Your task to perform on an android device: toggle location history Image 0: 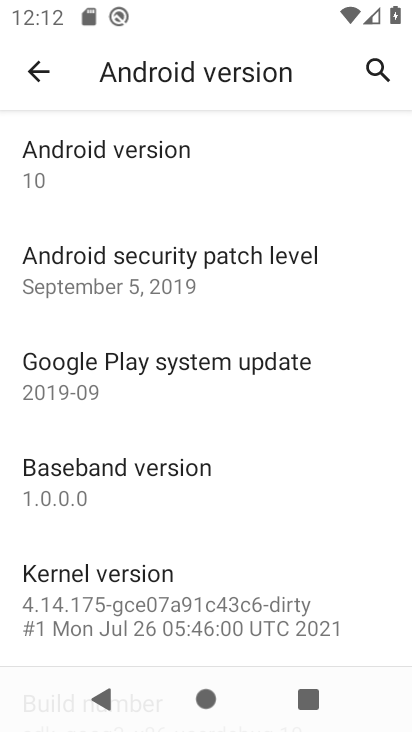
Step 0: press home button
Your task to perform on an android device: toggle location history Image 1: 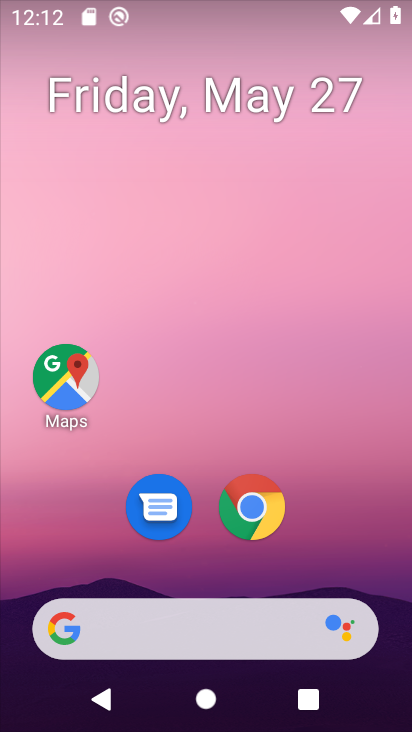
Step 1: drag from (79, 589) to (225, 44)
Your task to perform on an android device: toggle location history Image 2: 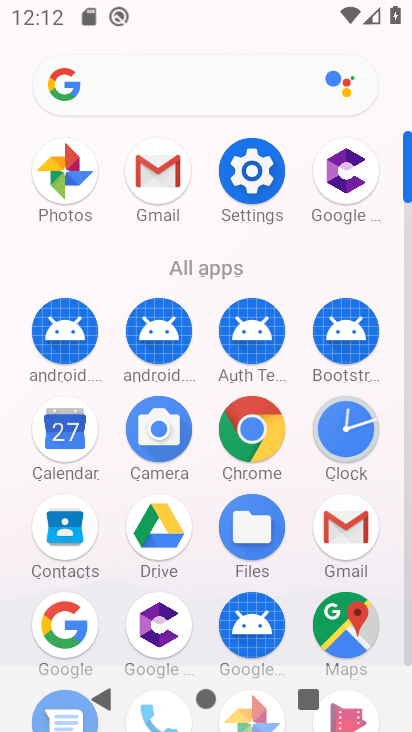
Step 2: drag from (148, 567) to (244, 248)
Your task to perform on an android device: toggle location history Image 3: 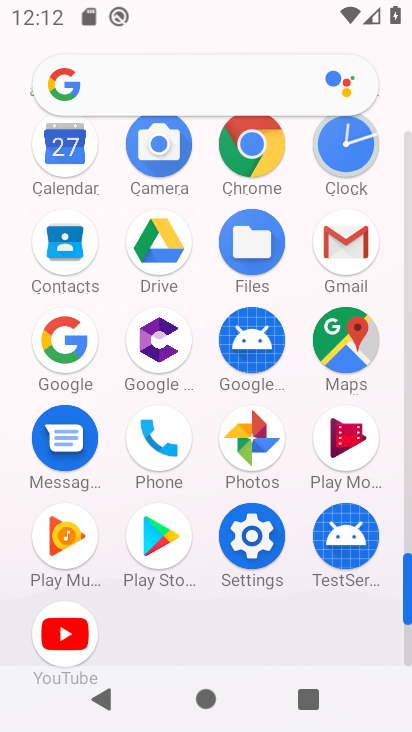
Step 3: click (248, 528)
Your task to perform on an android device: toggle location history Image 4: 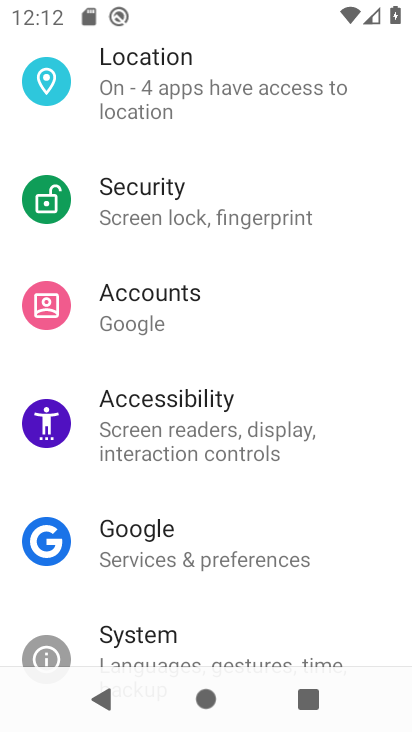
Step 4: drag from (239, 212) to (234, 709)
Your task to perform on an android device: toggle location history Image 5: 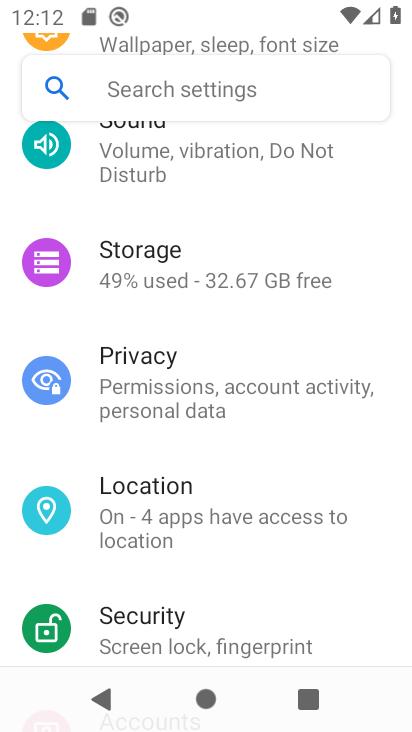
Step 5: click (138, 491)
Your task to perform on an android device: toggle location history Image 6: 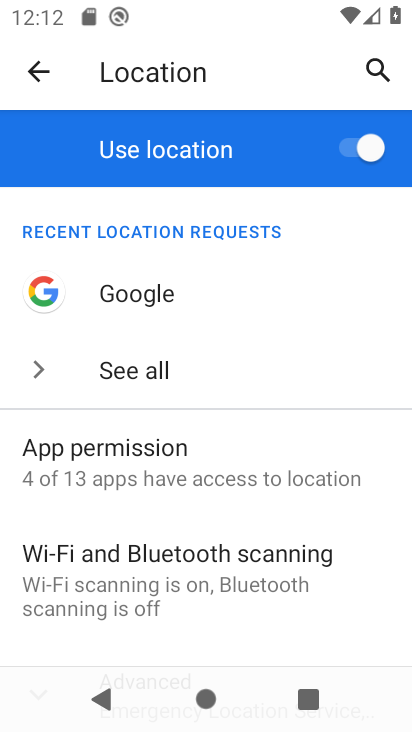
Step 6: drag from (129, 629) to (215, 401)
Your task to perform on an android device: toggle location history Image 7: 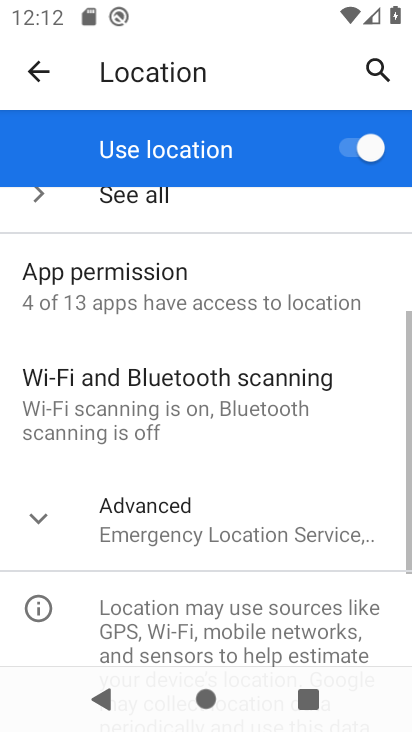
Step 7: click (164, 498)
Your task to perform on an android device: toggle location history Image 8: 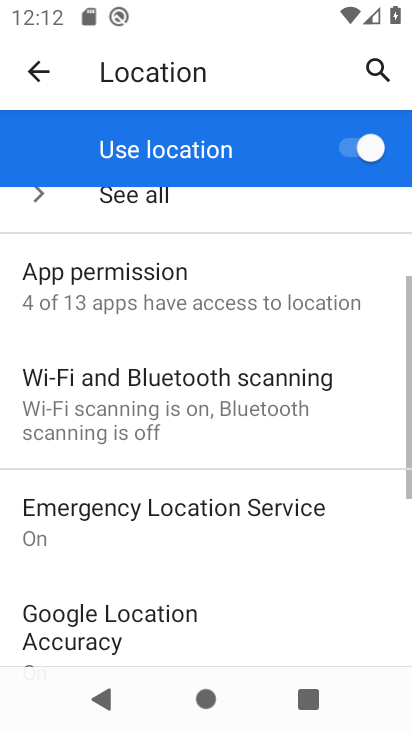
Step 8: drag from (163, 591) to (317, 225)
Your task to perform on an android device: toggle location history Image 9: 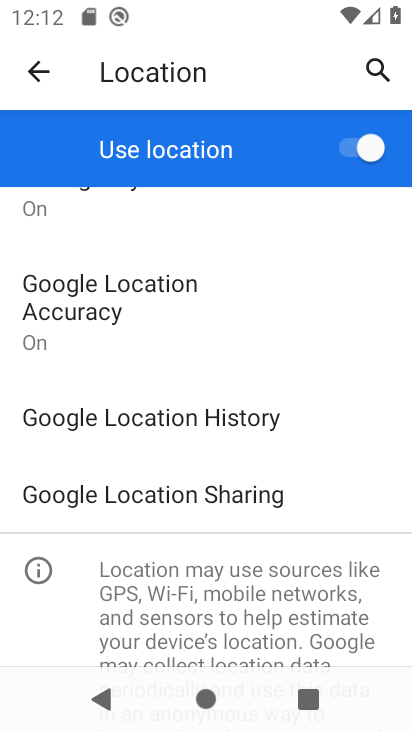
Step 9: click (159, 420)
Your task to perform on an android device: toggle location history Image 10: 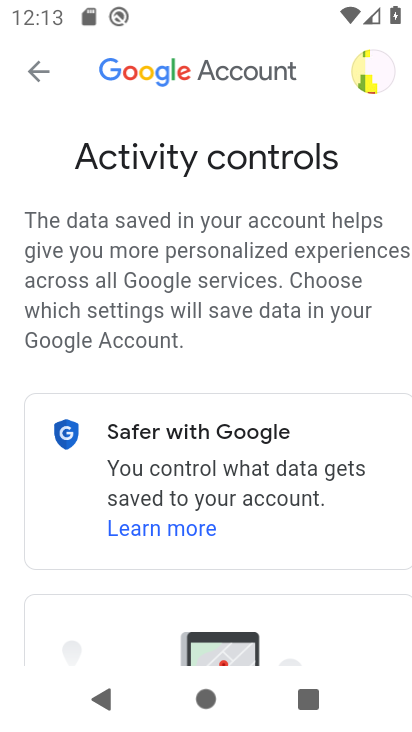
Step 10: drag from (145, 570) to (286, 149)
Your task to perform on an android device: toggle location history Image 11: 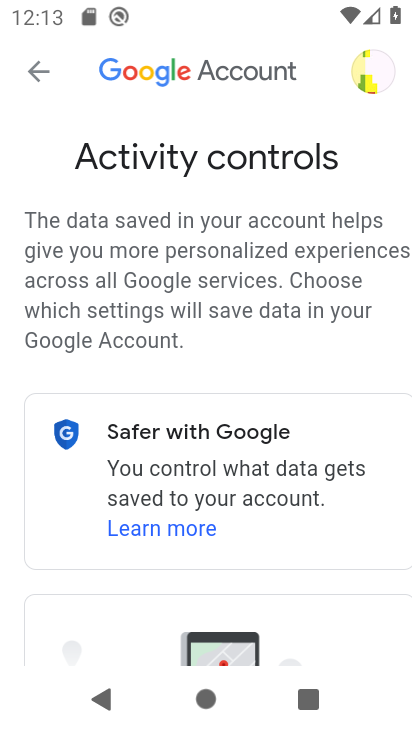
Step 11: drag from (161, 602) to (326, 129)
Your task to perform on an android device: toggle location history Image 12: 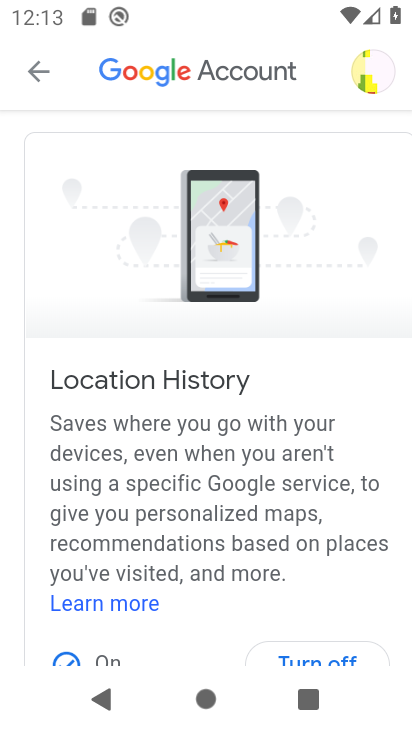
Step 12: drag from (212, 617) to (339, 187)
Your task to perform on an android device: toggle location history Image 13: 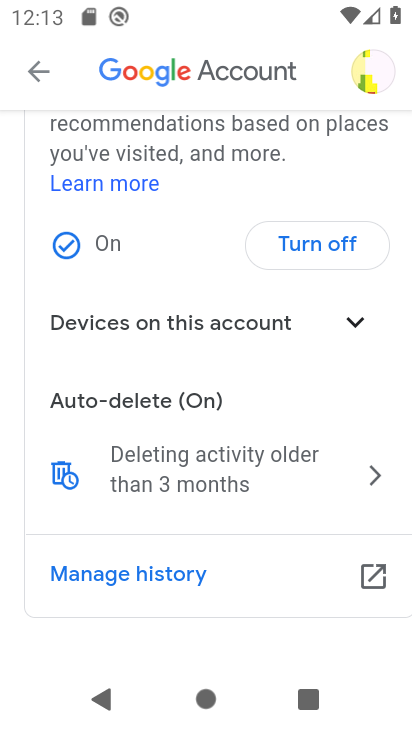
Step 13: click (345, 242)
Your task to perform on an android device: toggle location history Image 14: 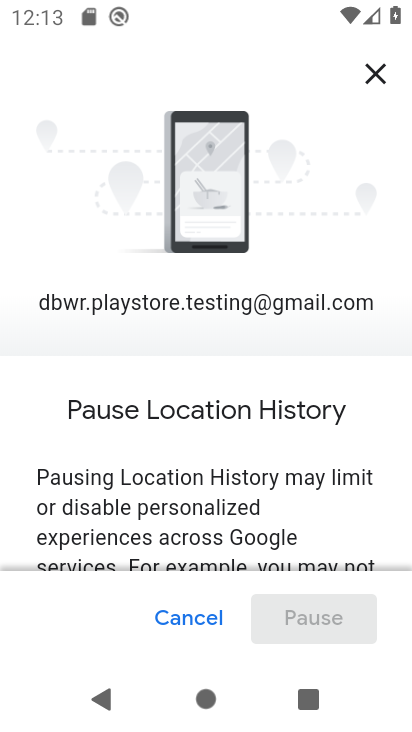
Step 14: drag from (149, 574) to (337, 59)
Your task to perform on an android device: toggle location history Image 15: 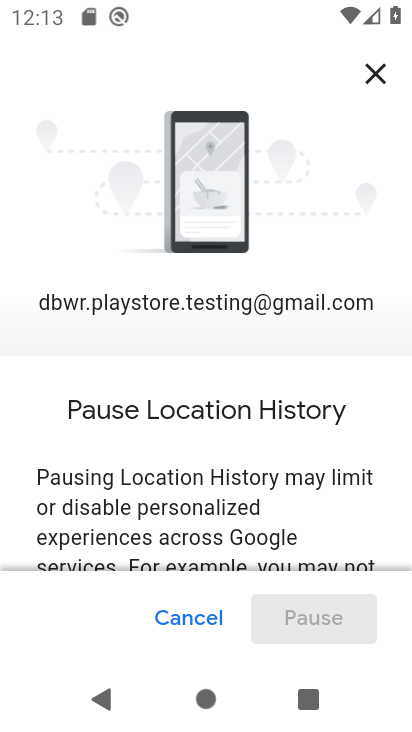
Step 15: drag from (199, 477) to (327, 51)
Your task to perform on an android device: toggle location history Image 16: 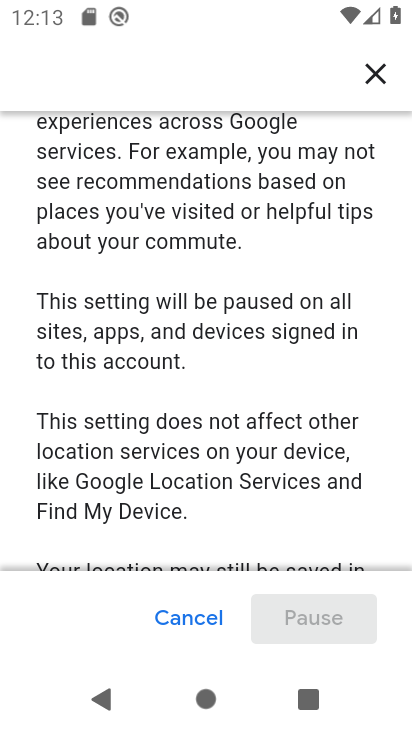
Step 16: drag from (174, 529) to (317, 120)
Your task to perform on an android device: toggle location history Image 17: 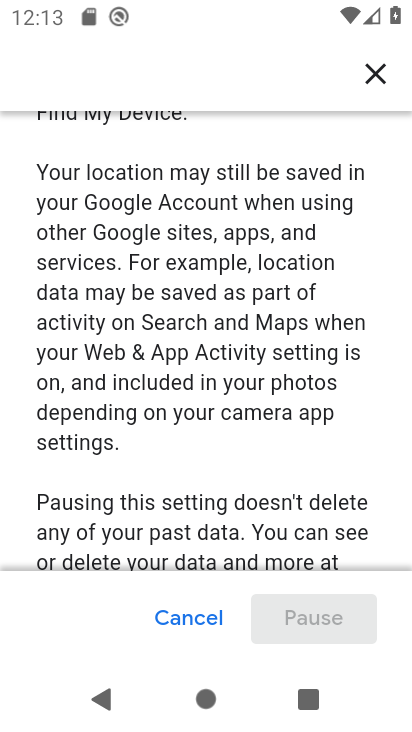
Step 17: drag from (213, 543) to (394, 80)
Your task to perform on an android device: toggle location history Image 18: 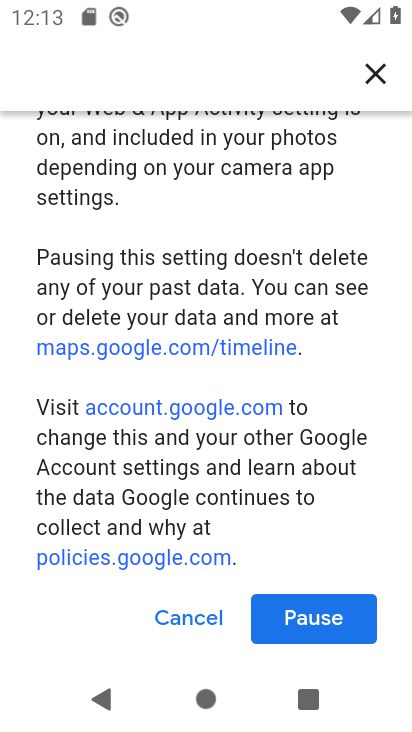
Step 18: click (325, 620)
Your task to perform on an android device: toggle location history Image 19: 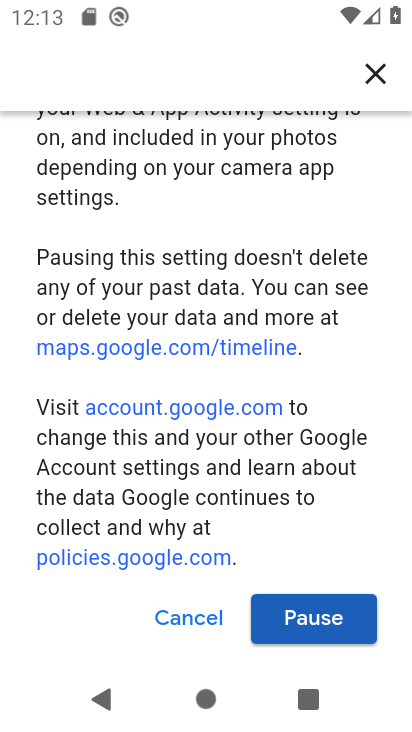
Step 19: click (337, 635)
Your task to perform on an android device: toggle location history Image 20: 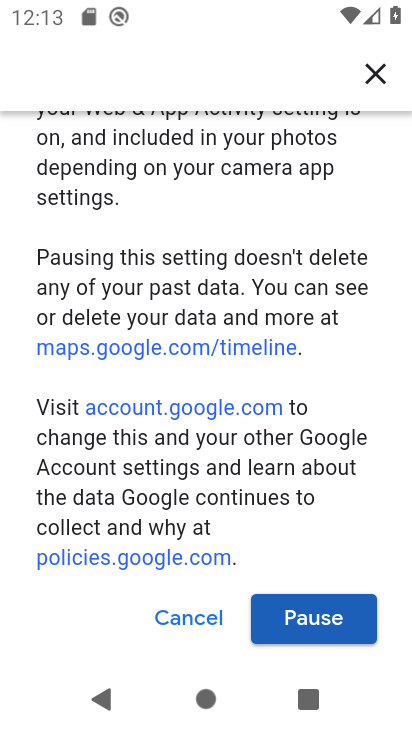
Step 20: click (329, 634)
Your task to perform on an android device: toggle location history Image 21: 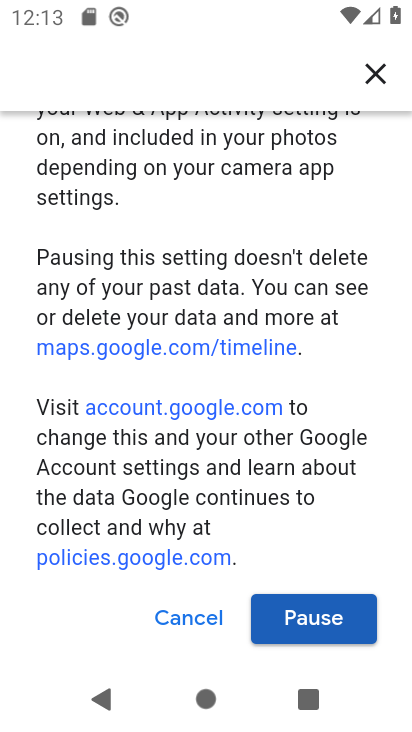
Step 21: click (329, 634)
Your task to perform on an android device: toggle location history Image 22: 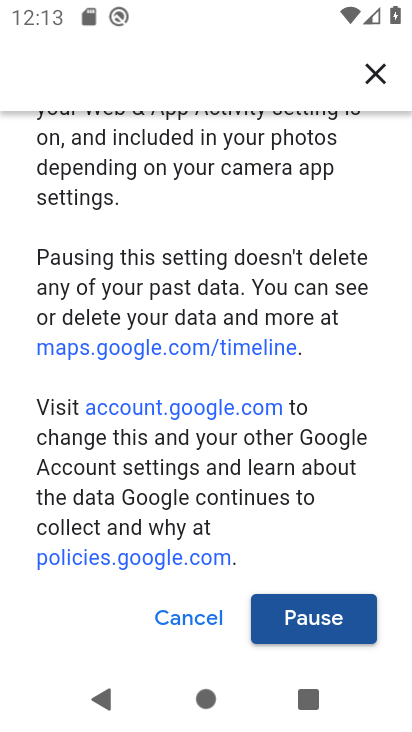
Step 22: drag from (256, 581) to (377, 139)
Your task to perform on an android device: toggle location history Image 23: 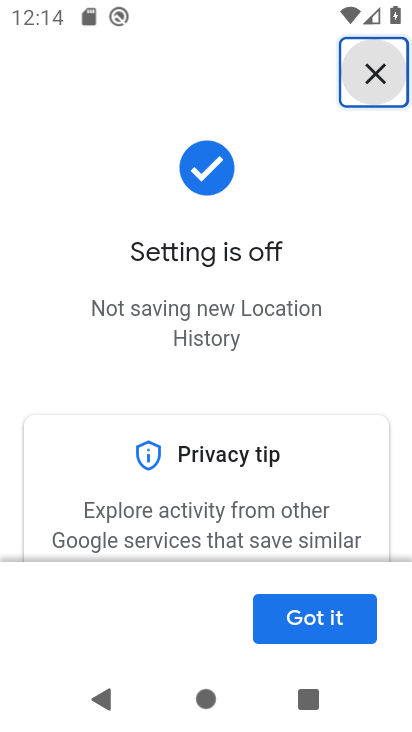
Step 23: click (347, 626)
Your task to perform on an android device: toggle location history Image 24: 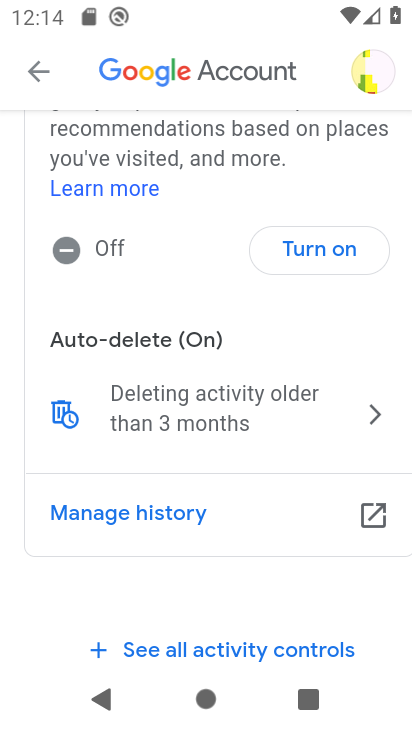
Step 24: task complete